Your task to perform on an android device: turn on the 12-hour format for clock Image 0: 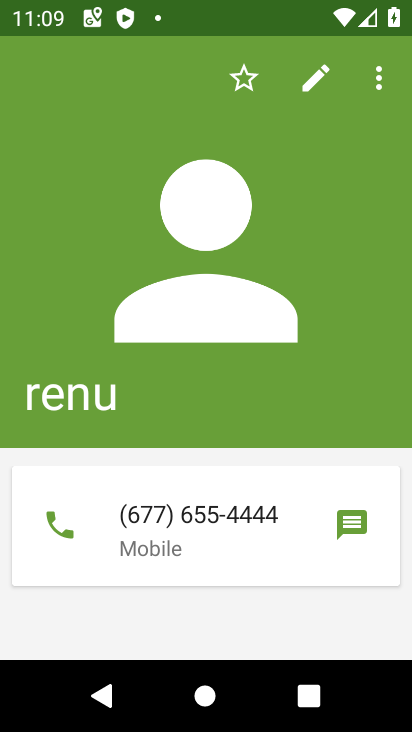
Step 0: press home button
Your task to perform on an android device: turn on the 12-hour format for clock Image 1: 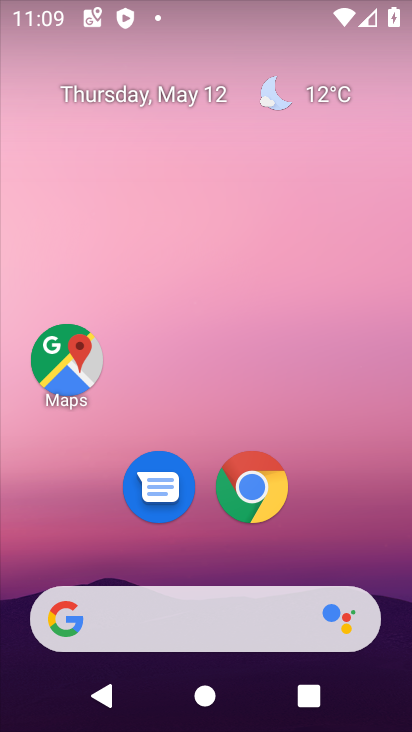
Step 1: drag from (371, 579) to (169, 4)
Your task to perform on an android device: turn on the 12-hour format for clock Image 2: 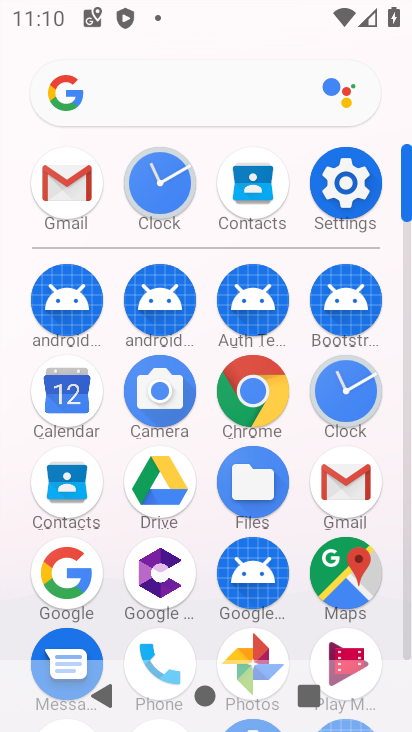
Step 2: click (164, 185)
Your task to perform on an android device: turn on the 12-hour format for clock Image 3: 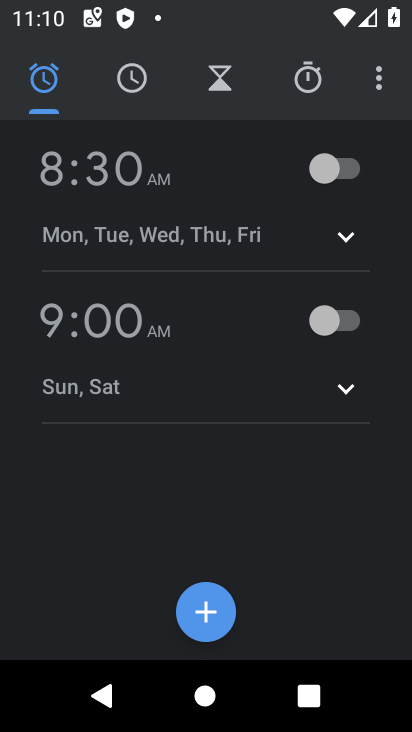
Step 3: click (380, 82)
Your task to perform on an android device: turn on the 12-hour format for clock Image 4: 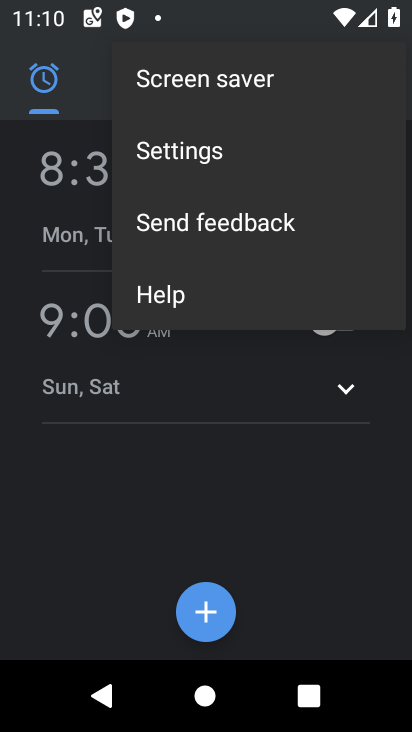
Step 4: click (162, 157)
Your task to perform on an android device: turn on the 12-hour format for clock Image 5: 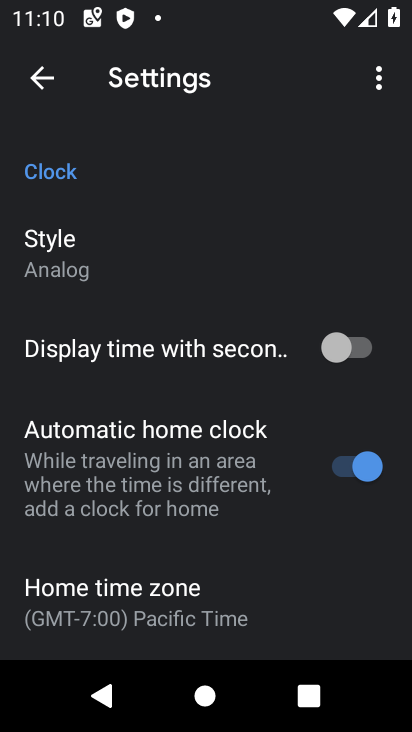
Step 5: drag from (271, 519) to (258, 160)
Your task to perform on an android device: turn on the 12-hour format for clock Image 6: 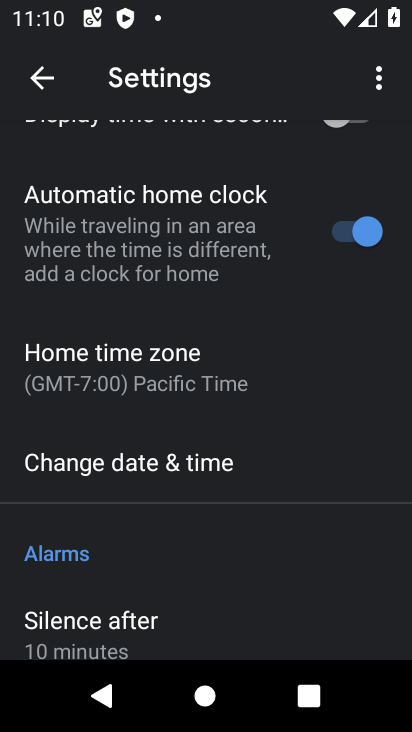
Step 6: click (100, 470)
Your task to perform on an android device: turn on the 12-hour format for clock Image 7: 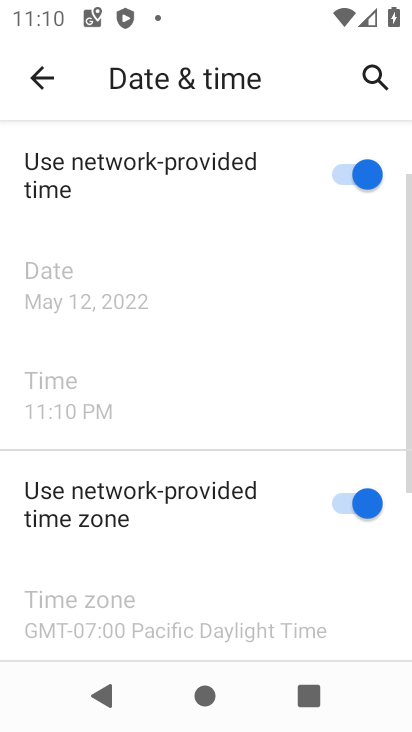
Step 7: task complete